Your task to perform on an android device: turn on improve location accuracy Image 0: 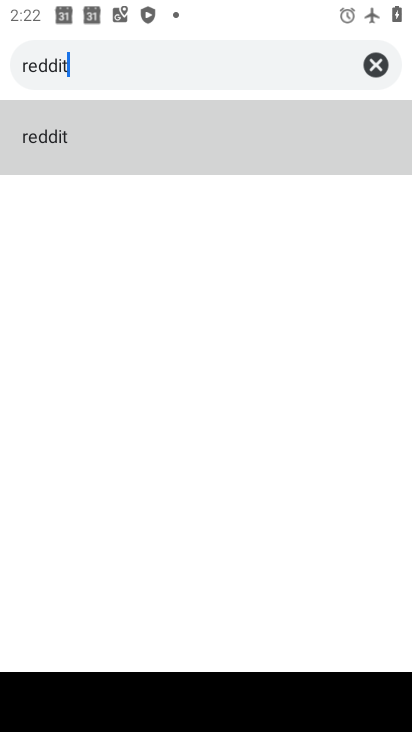
Step 0: press home button
Your task to perform on an android device: turn on improve location accuracy Image 1: 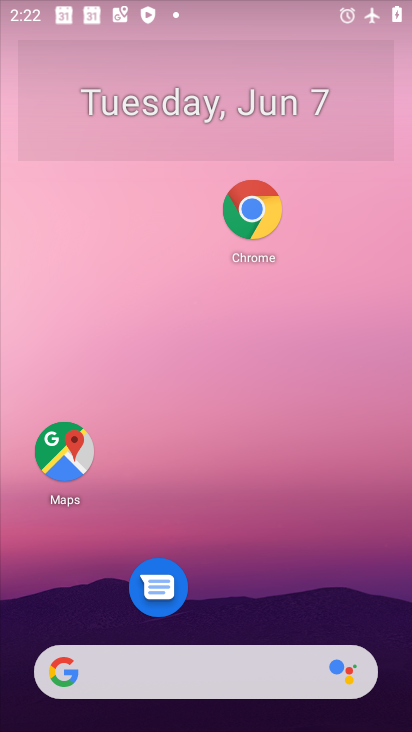
Step 1: drag from (239, 651) to (190, 55)
Your task to perform on an android device: turn on improve location accuracy Image 2: 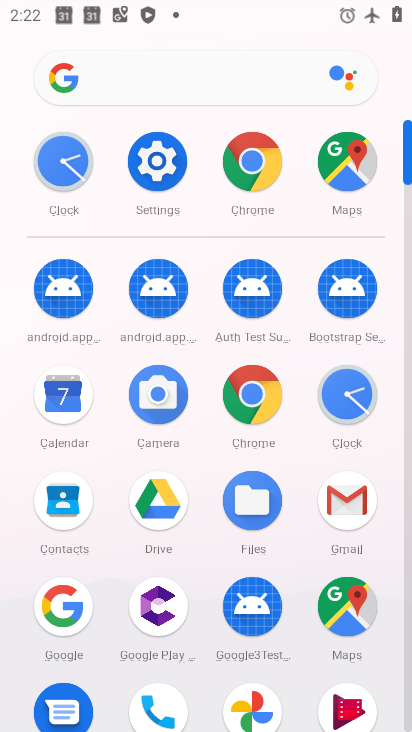
Step 2: click (179, 153)
Your task to perform on an android device: turn on improve location accuracy Image 3: 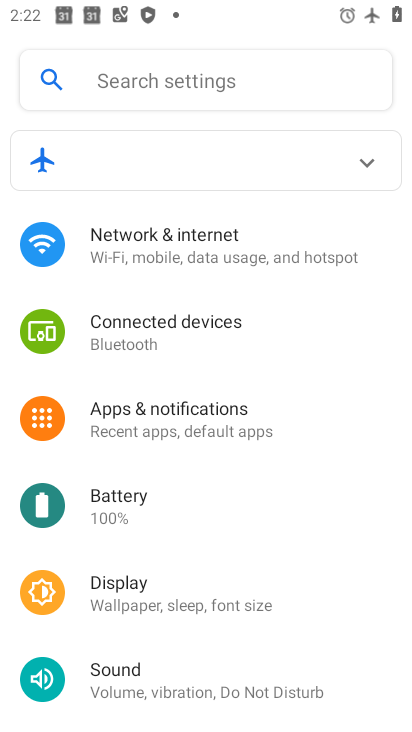
Step 3: drag from (216, 477) to (225, 92)
Your task to perform on an android device: turn on improve location accuracy Image 4: 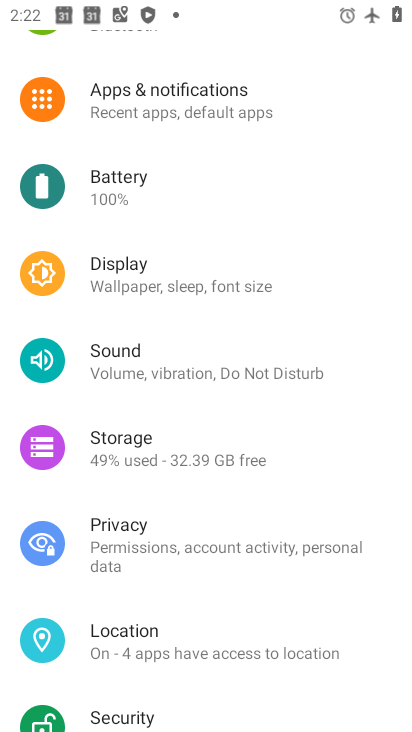
Step 4: click (170, 639)
Your task to perform on an android device: turn on improve location accuracy Image 5: 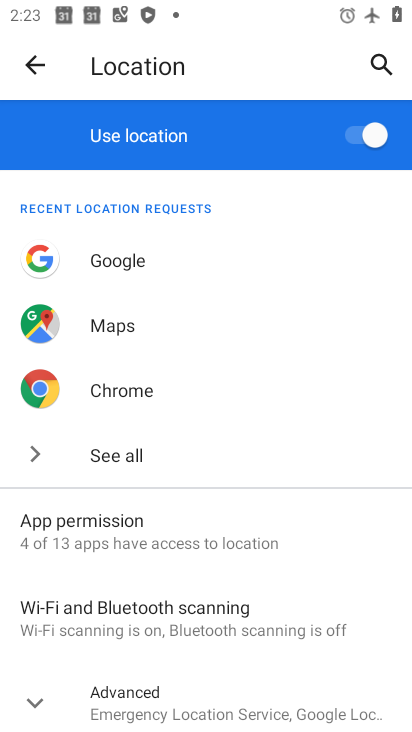
Step 5: click (54, 704)
Your task to perform on an android device: turn on improve location accuracy Image 6: 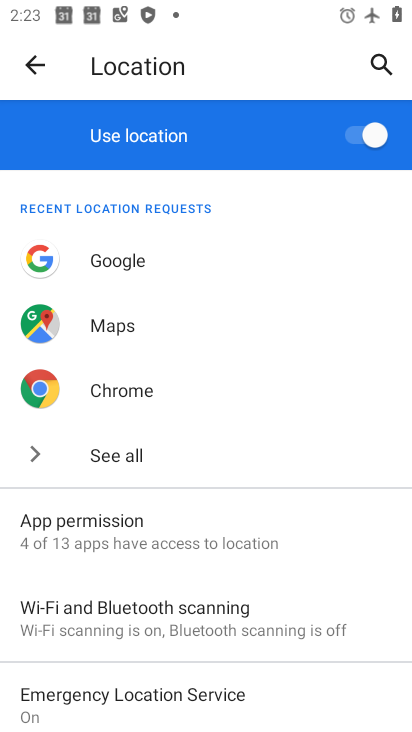
Step 6: drag from (215, 549) to (159, 143)
Your task to perform on an android device: turn on improve location accuracy Image 7: 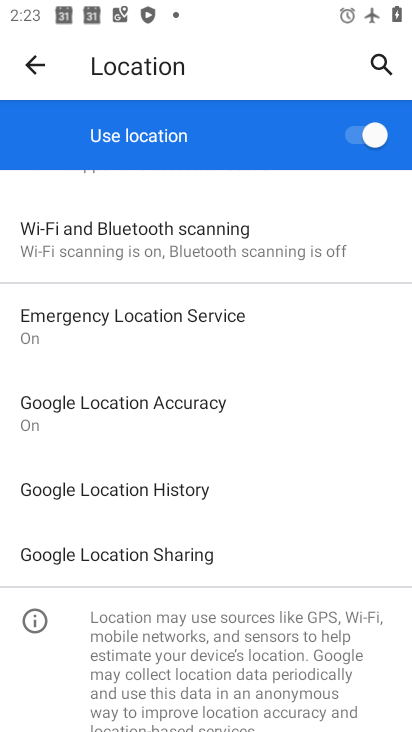
Step 7: click (210, 399)
Your task to perform on an android device: turn on improve location accuracy Image 8: 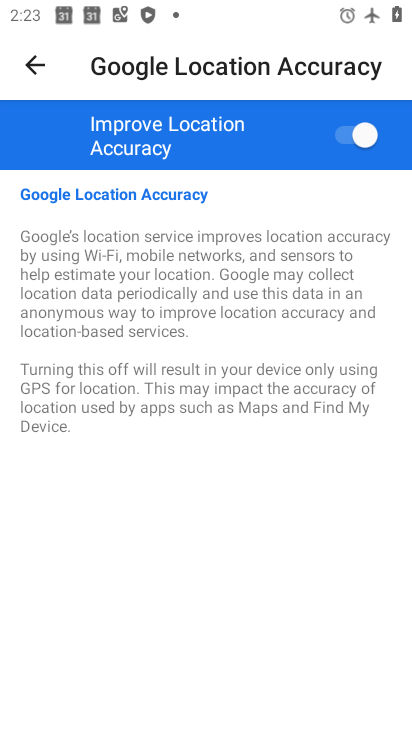
Step 8: task complete